Your task to perform on an android device: see sites visited before in the chrome app Image 0: 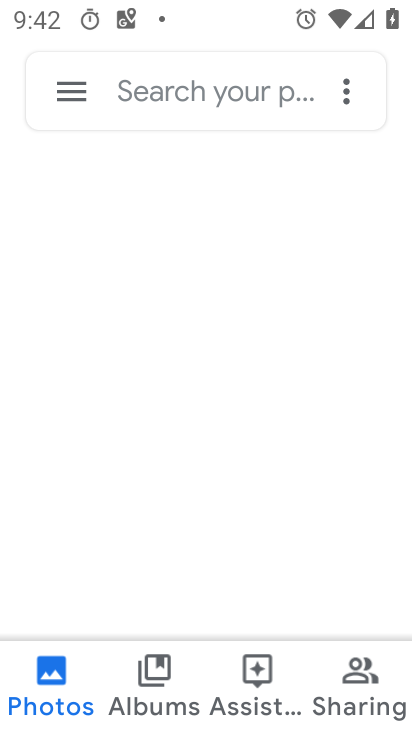
Step 0: drag from (307, 583) to (307, 453)
Your task to perform on an android device: see sites visited before in the chrome app Image 1: 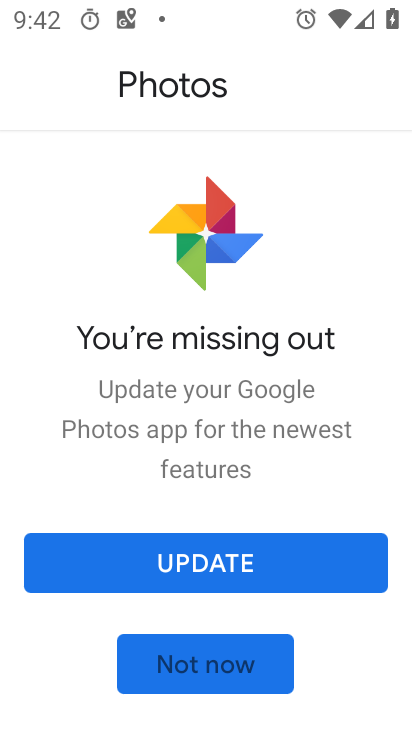
Step 1: press home button
Your task to perform on an android device: see sites visited before in the chrome app Image 2: 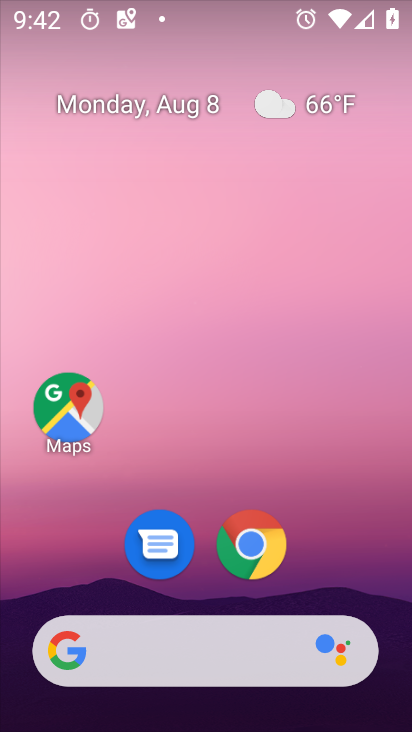
Step 2: click (248, 537)
Your task to perform on an android device: see sites visited before in the chrome app Image 3: 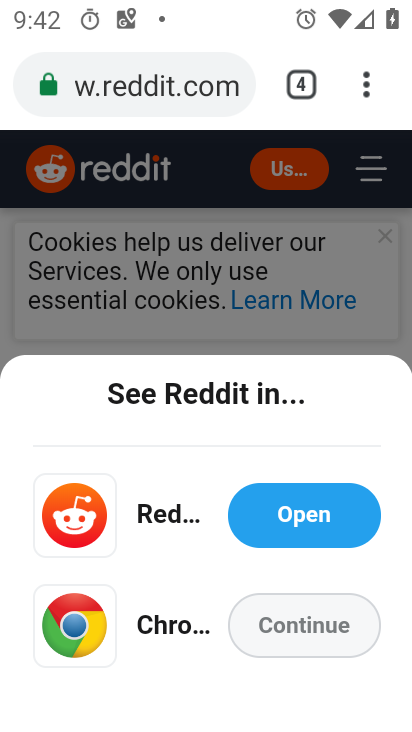
Step 3: click (308, 630)
Your task to perform on an android device: see sites visited before in the chrome app Image 4: 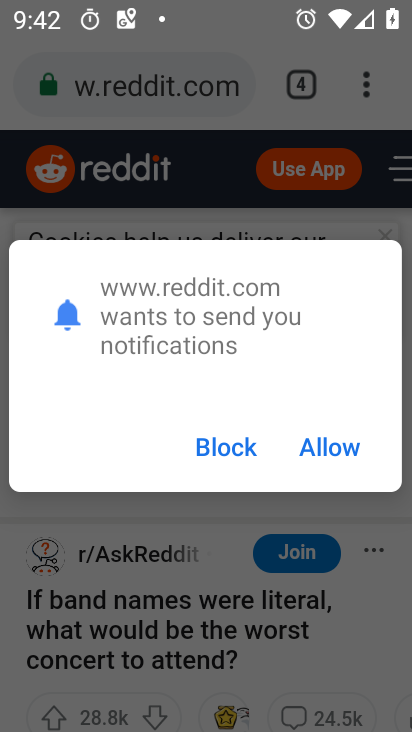
Step 4: click (328, 443)
Your task to perform on an android device: see sites visited before in the chrome app Image 5: 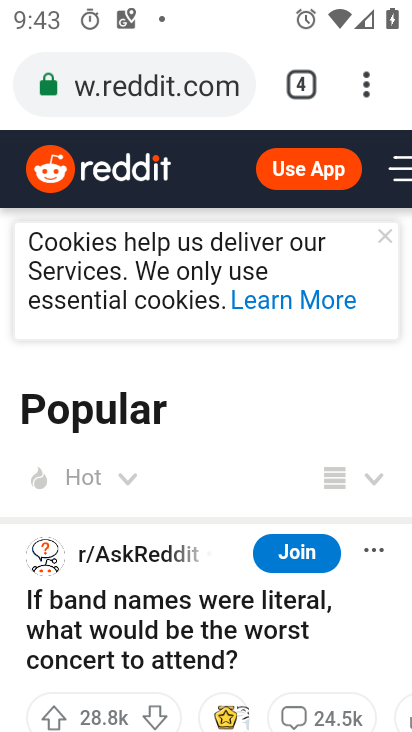
Step 5: click (368, 81)
Your task to perform on an android device: see sites visited before in the chrome app Image 6: 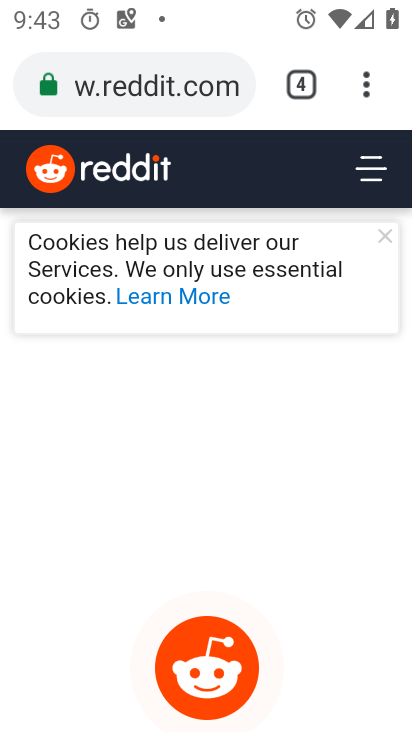
Step 6: click (365, 87)
Your task to perform on an android device: see sites visited before in the chrome app Image 7: 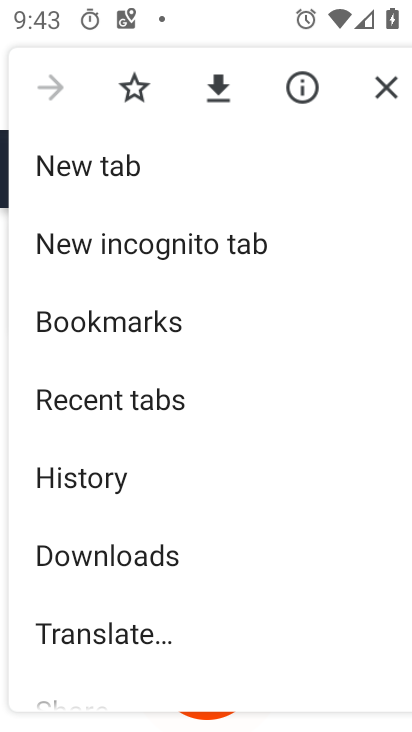
Step 7: click (151, 477)
Your task to perform on an android device: see sites visited before in the chrome app Image 8: 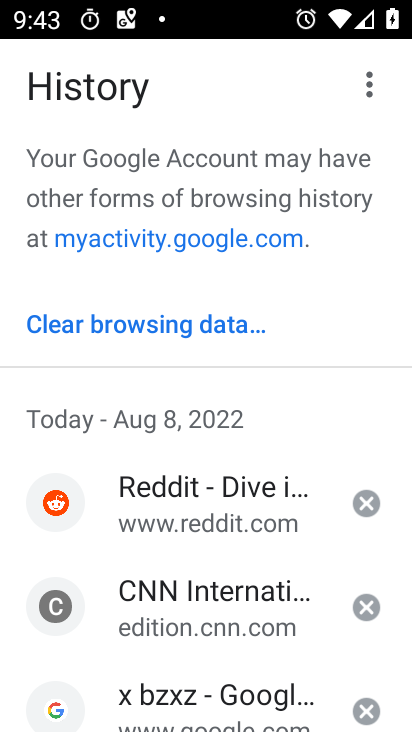
Step 8: task complete